Your task to perform on an android device: change notification settings in the gmail app Image 0: 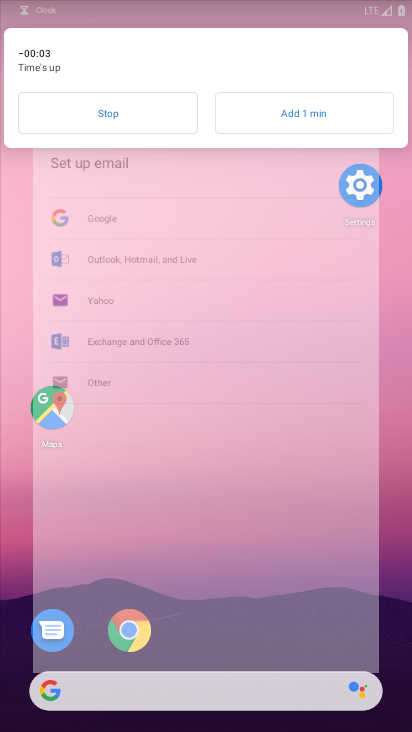
Step 0: drag from (284, 614) to (300, 517)
Your task to perform on an android device: change notification settings in the gmail app Image 1: 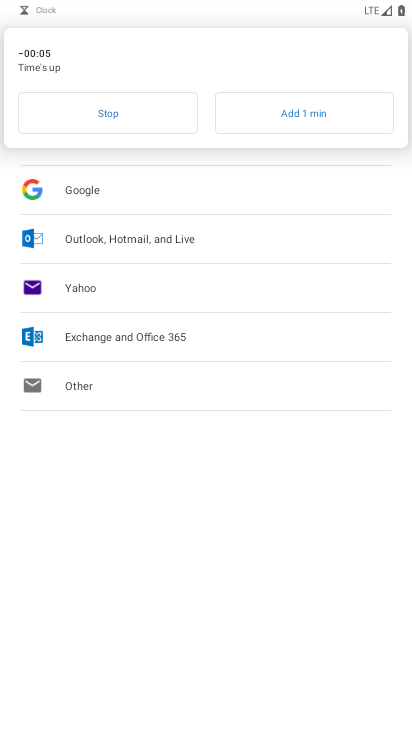
Step 1: press home button
Your task to perform on an android device: change notification settings in the gmail app Image 2: 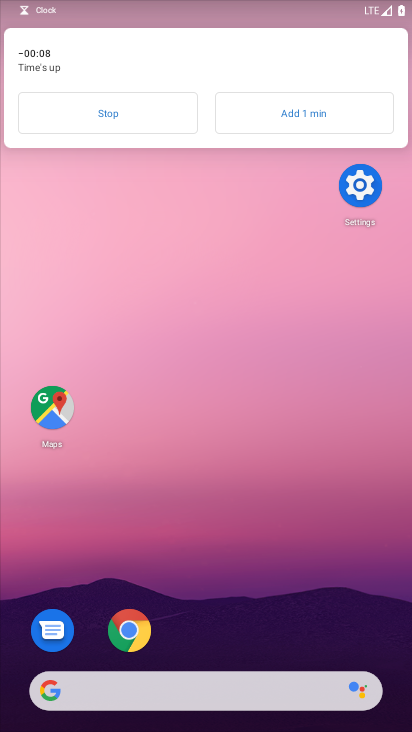
Step 2: click (119, 117)
Your task to perform on an android device: change notification settings in the gmail app Image 3: 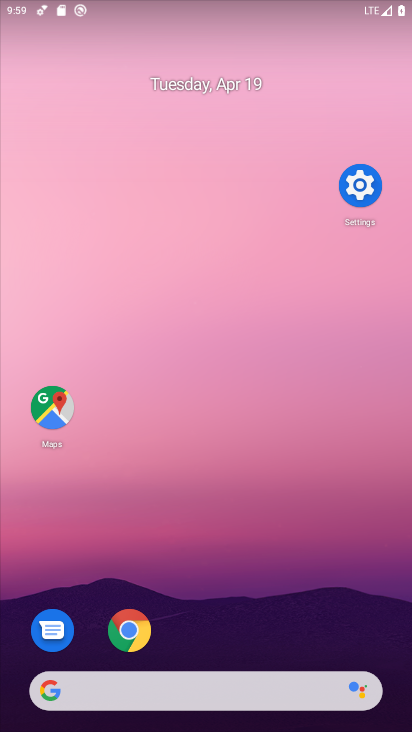
Step 3: drag from (322, 466) to (390, 64)
Your task to perform on an android device: change notification settings in the gmail app Image 4: 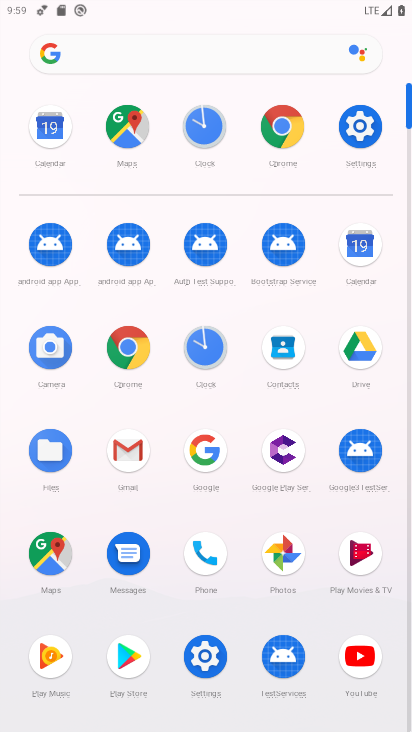
Step 4: click (133, 448)
Your task to perform on an android device: change notification settings in the gmail app Image 5: 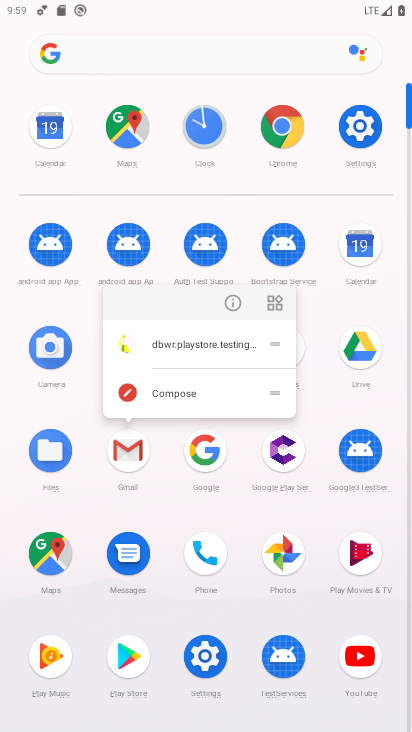
Step 5: click (133, 448)
Your task to perform on an android device: change notification settings in the gmail app Image 6: 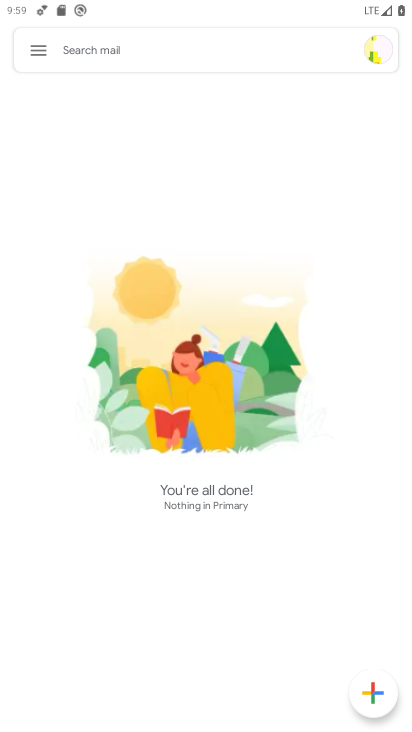
Step 6: click (46, 58)
Your task to perform on an android device: change notification settings in the gmail app Image 7: 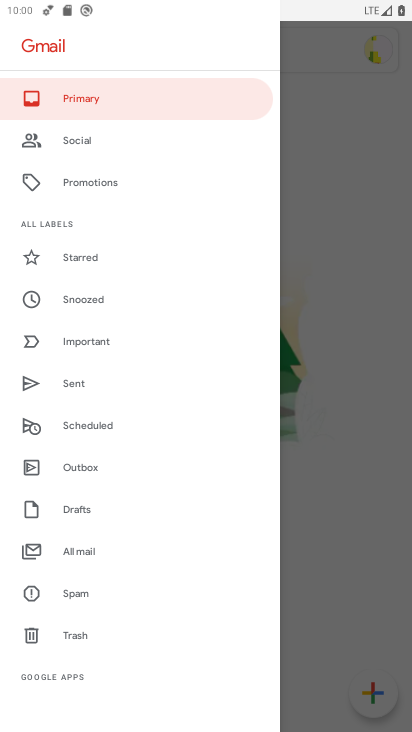
Step 7: drag from (96, 576) to (208, 96)
Your task to perform on an android device: change notification settings in the gmail app Image 8: 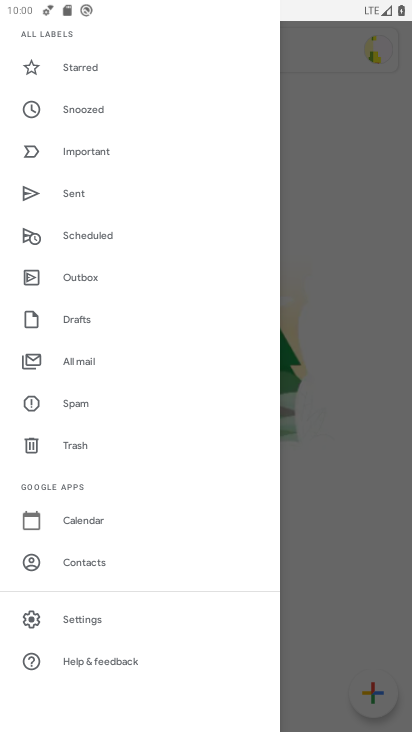
Step 8: click (102, 616)
Your task to perform on an android device: change notification settings in the gmail app Image 9: 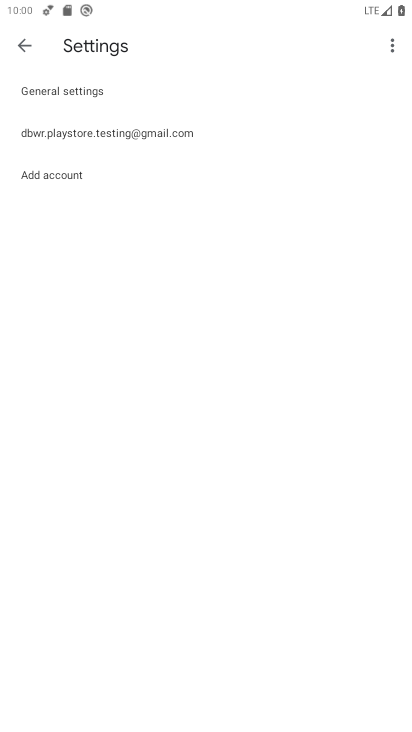
Step 9: click (93, 93)
Your task to perform on an android device: change notification settings in the gmail app Image 10: 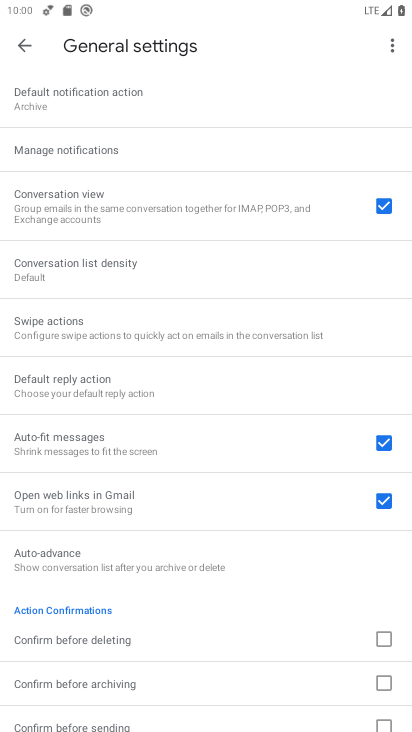
Step 10: click (141, 156)
Your task to perform on an android device: change notification settings in the gmail app Image 11: 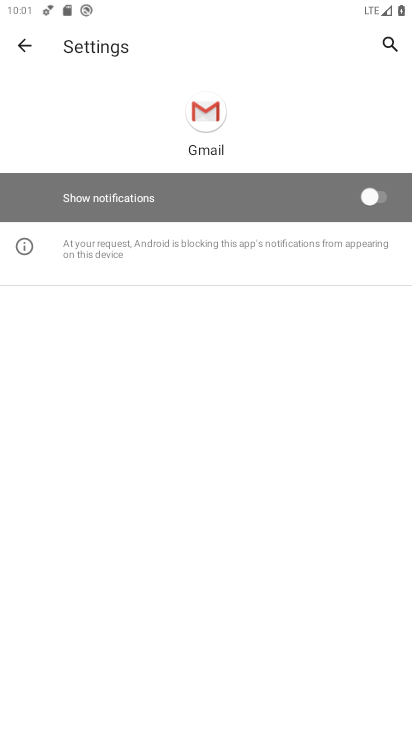
Step 11: task complete